Your task to perform on an android device: View the shopping cart on target.com. Search for "logitech g933" on target.com, select the first entry, add it to the cart, then select checkout. Image 0: 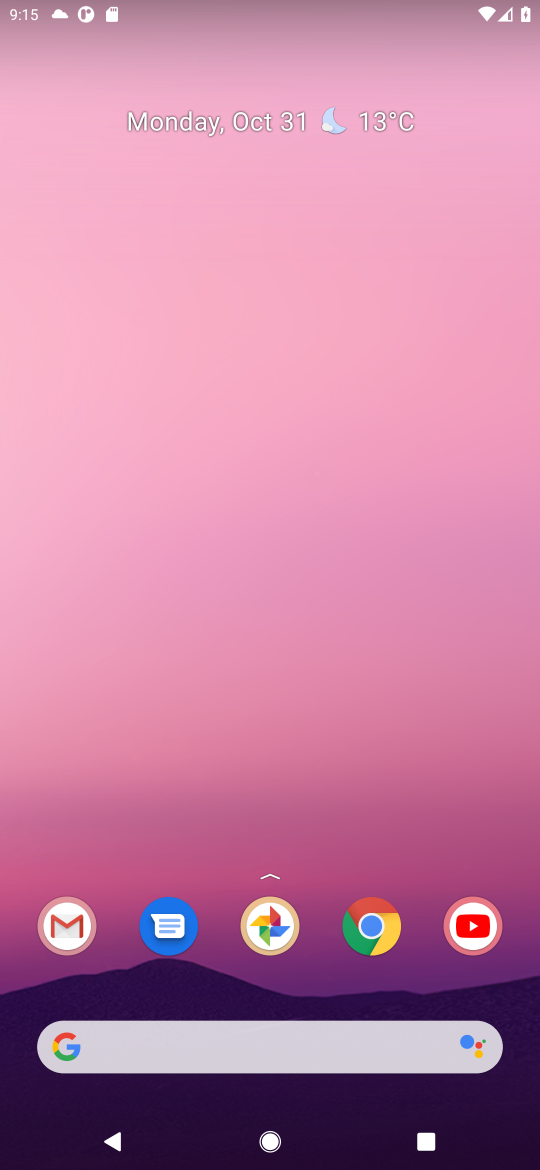
Step 0: click (374, 933)
Your task to perform on an android device: View the shopping cart on target.com. Search for "logitech g933" on target.com, select the first entry, add it to the cart, then select checkout. Image 1: 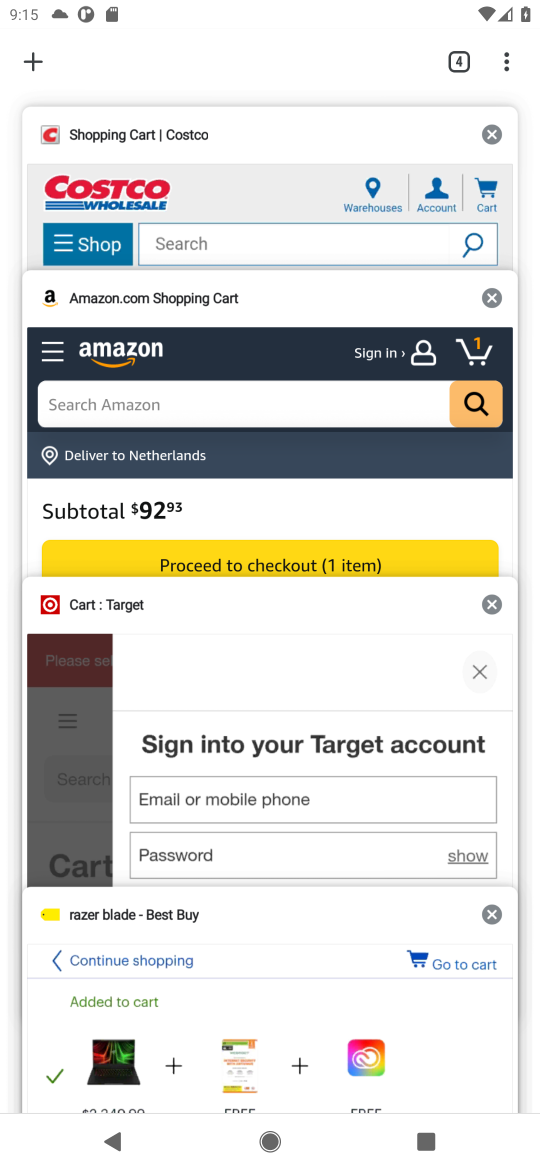
Step 1: click (218, 684)
Your task to perform on an android device: View the shopping cart on target.com. Search for "logitech g933" on target.com, select the first entry, add it to the cart, then select checkout. Image 2: 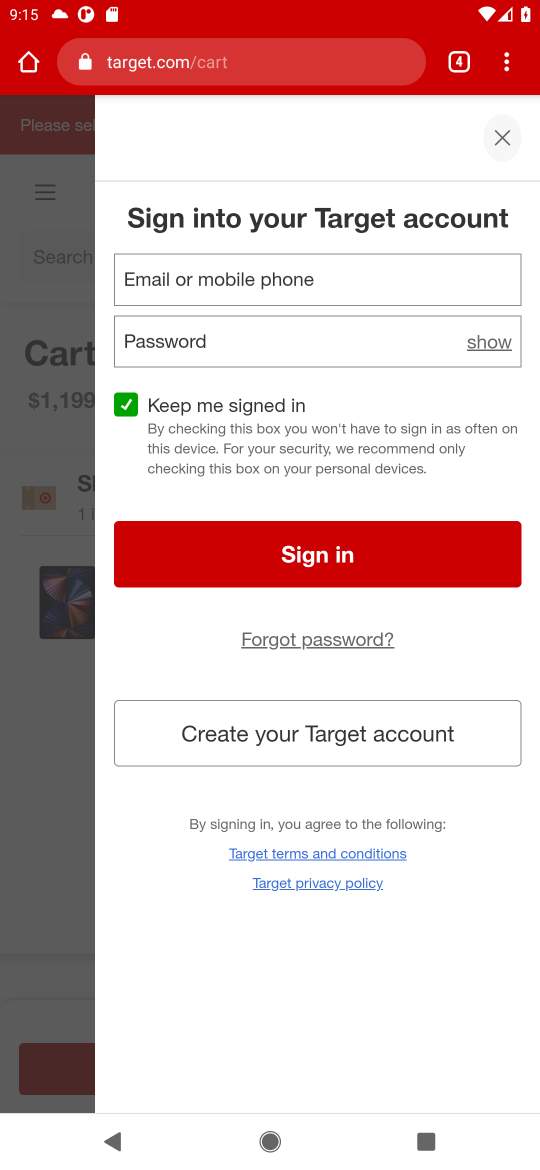
Step 2: click (500, 135)
Your task to perform on an android device: View the shopping cart on target.com. Search for "logitech g933" on target.com, select the first entry, add it to the cart, then select checkout. Image 3: 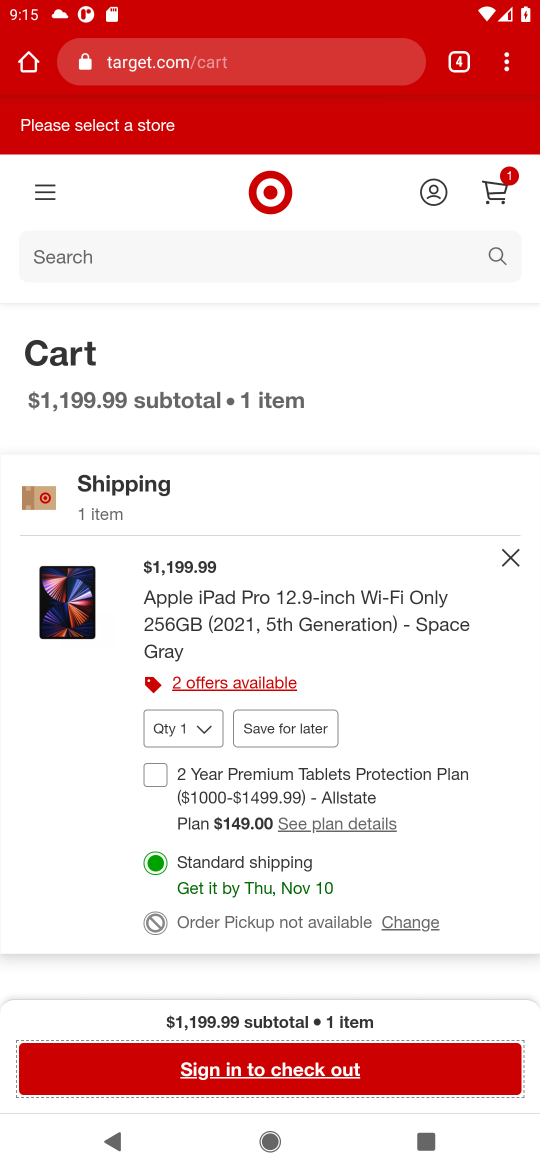
Step 3: click (298, 256)
Your task to perform on an android device: View the shopping cart on target.com. Search for "logitech g933" on target.com, select the first entry, add it to the cart, then select checkout. Image 4: 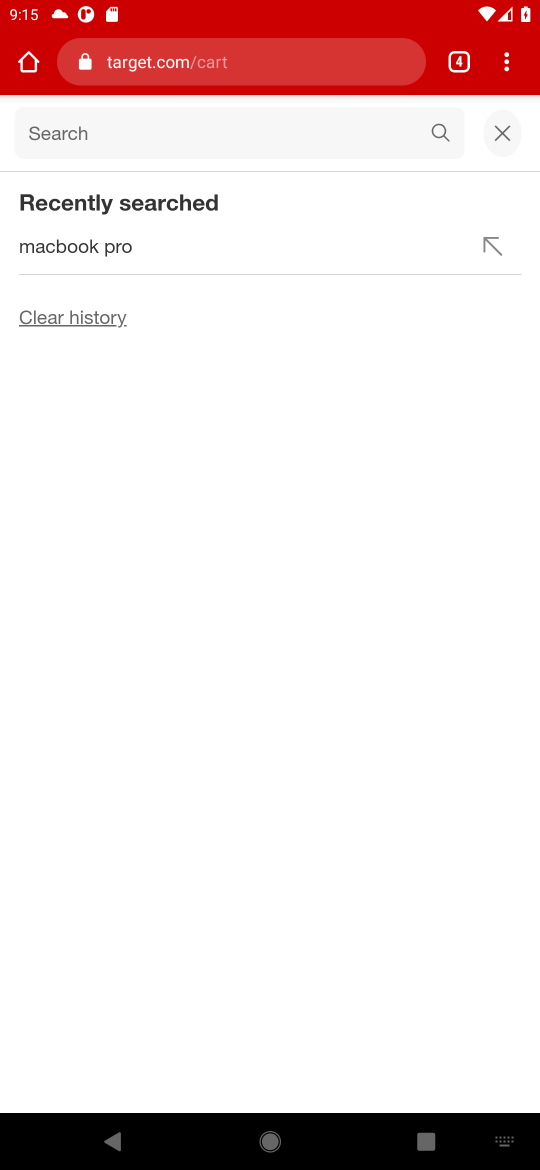
Step 4: type "logitech g 933"
Your task to perform on an android device: View the shopping cart on target.com. Search for "logitech g933" on target.com, select the first entry, add it to the cart, then select checkout. Image 5: 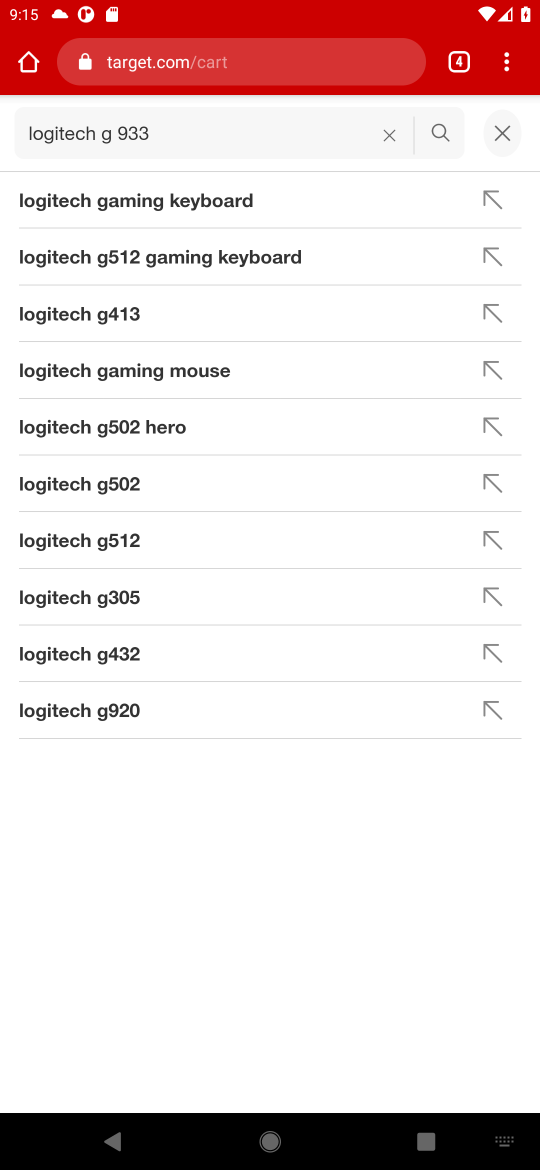
Step 5: click (102, 196)
Your task to perform on an android device: View the shopping cart on target.com. Search for "logitech g933" on target.com, select the first entry, add it to the cart, then select checkout. Image 6: 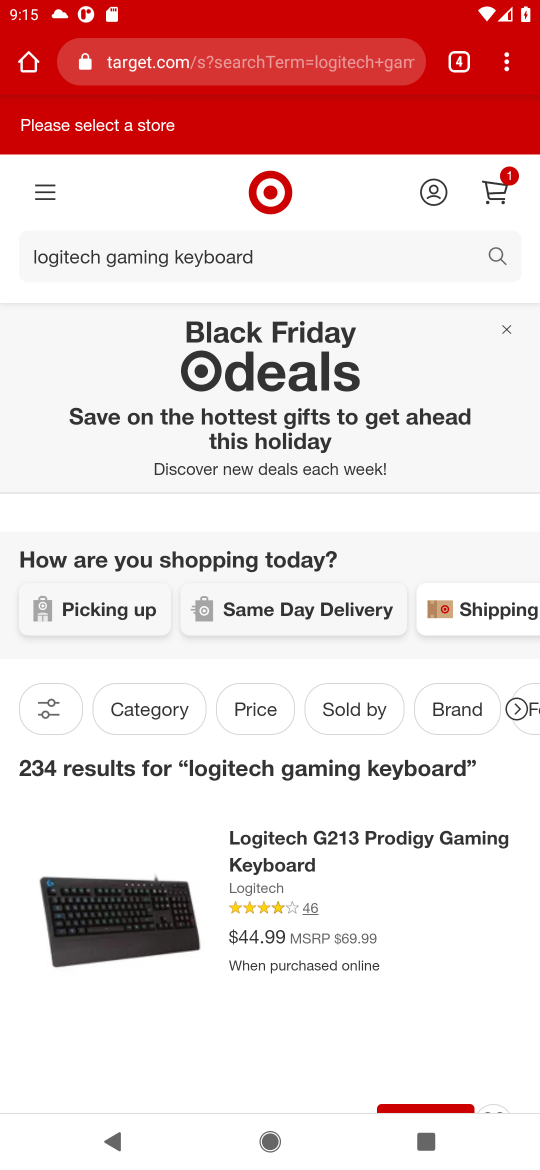
Step 6: drag from (405, 957) to (428, 548)
Your task to perform on an android device: View the shopping cart on target.com. Search for "logitech g933" on target.com, select the first entry, add it to the cart, then select checkout. Image 7: 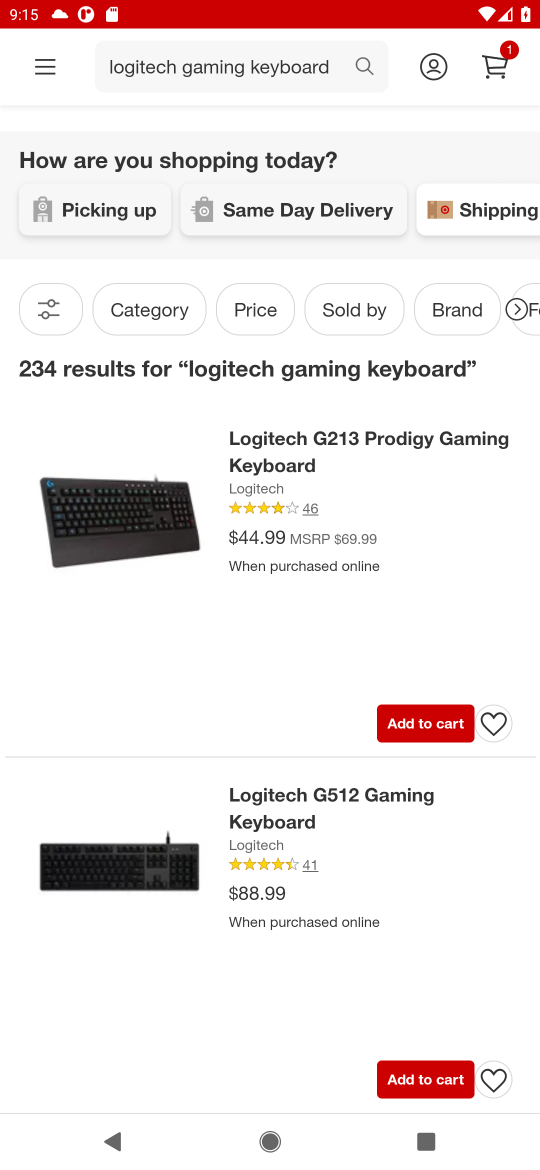
Step 7: click (426, 726)
Your task to perform on an android device: View the shopping cart on target.com. Search for "logitech g933" on target.com, select the first entry, add it to the cart, then select checkout. Image 8: 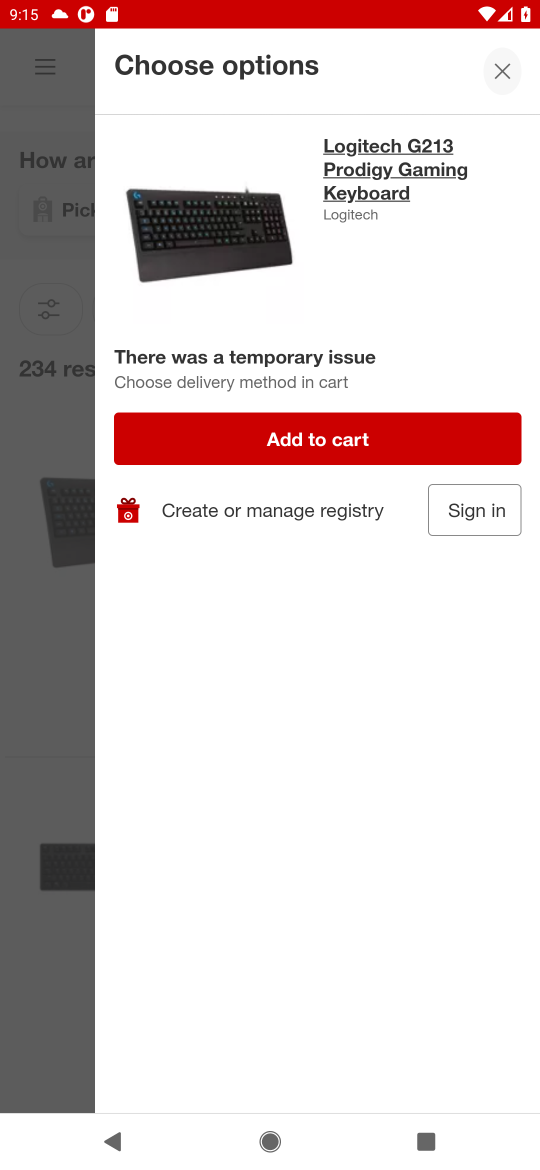
Step 8: click (361, 448)
Your task to perform on an android device: View the shopping cart on target.com. Search for "logitech g933" on target.com, select the first entry, add it to the cart, then select checkout. Image 9: 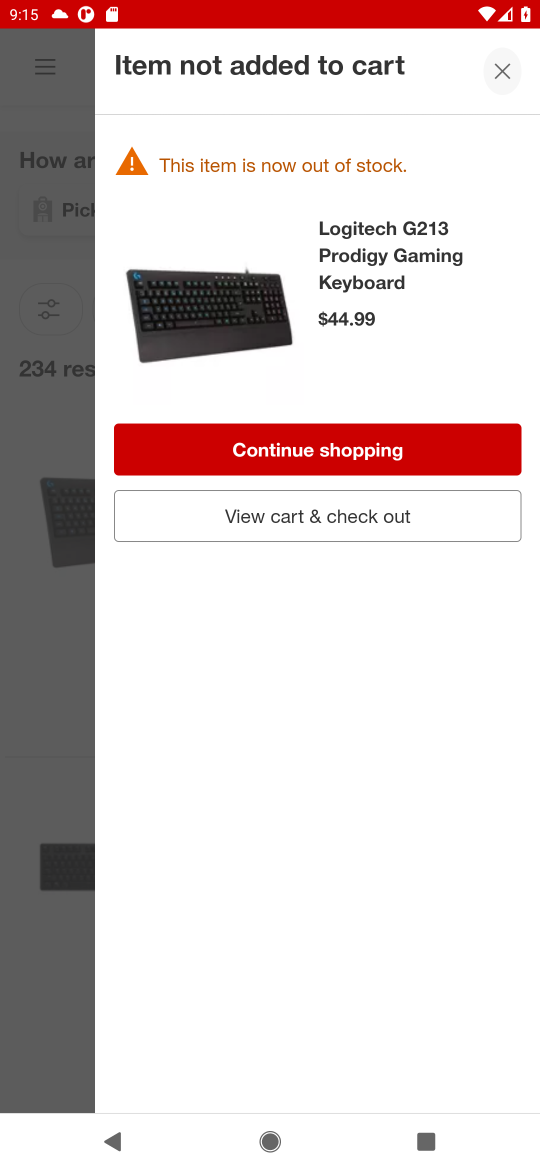
Step 9: task complete